Your task to perform on an android device: Open the Play Movies app and select the watchlist tab. Image 0: 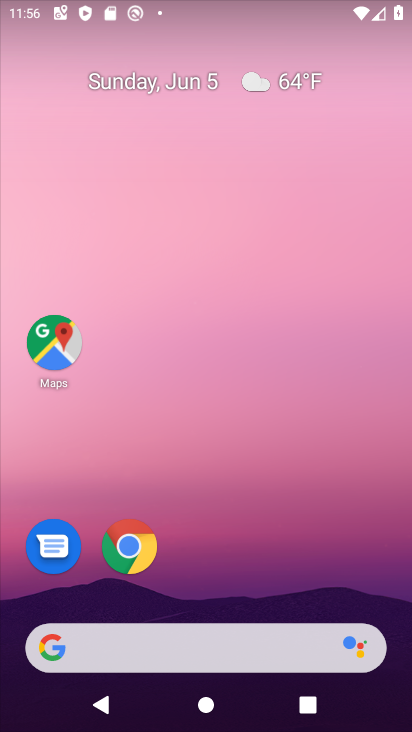
Step 0: drag from (273, 594) to (268, 186)
Your task to perform on an android device: Open the Play Movies app and select the watchlist tab. Image 1: 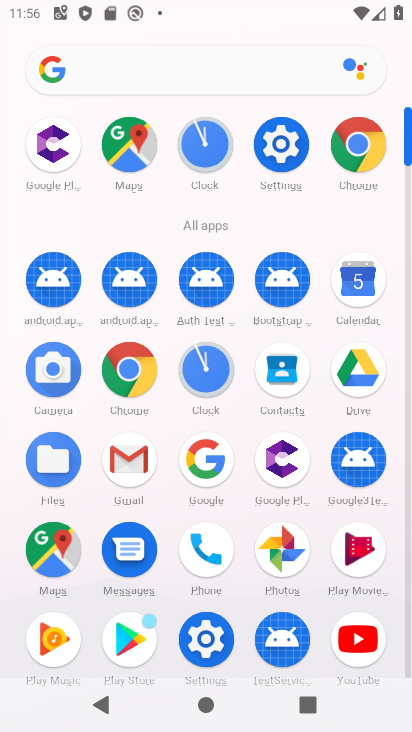
Step 1: click (357, 556)
Your task to perform on an android device: Open the Play Movies app and select the watchlist tab. Image 2: 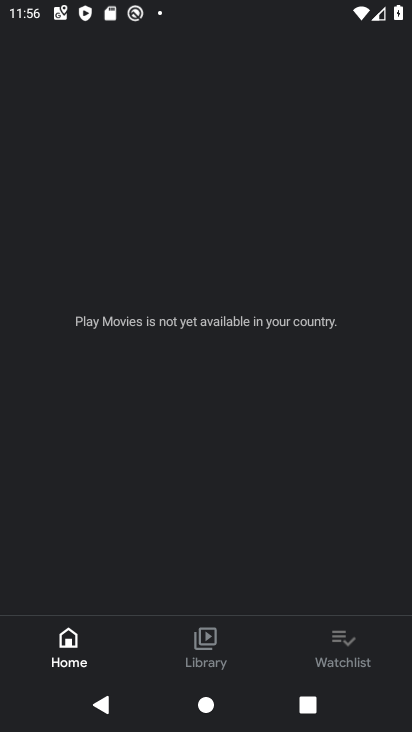
Step 2: click (338, 637)
Your task to perform on an android device: Open the Play Movies app and select the watchlist tab. Image 3: 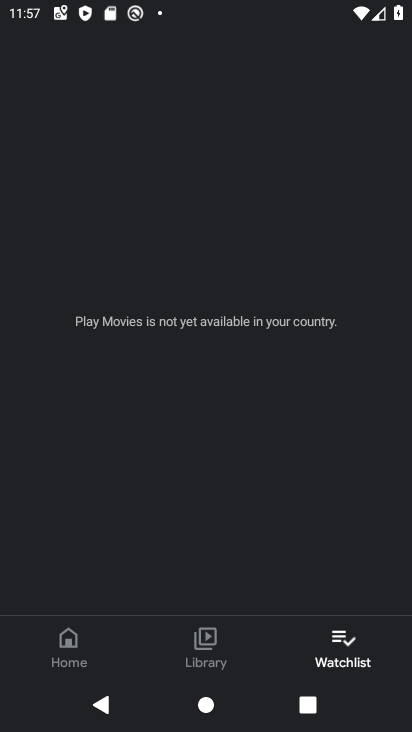
Step 3: task complete